Your task to perform on an android device: Check the weather Image 0: 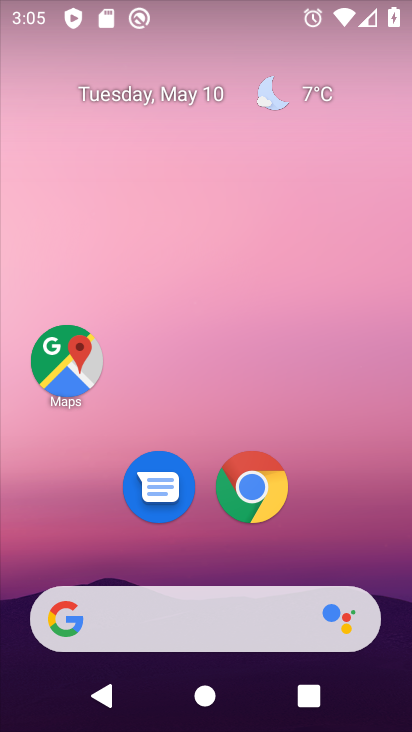
Step 0: click (318, 92)
Your task to perform on an android device: Check the weather Image 1: 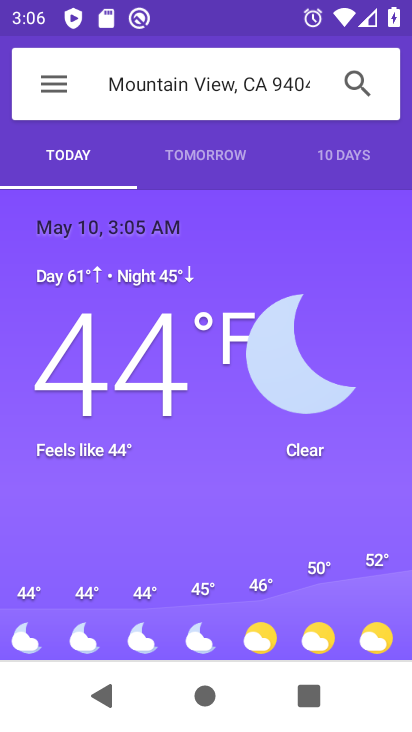
Step 1: task complete